Your task to perform on an android device: Open calendar and show me the first week of next month Image 0: 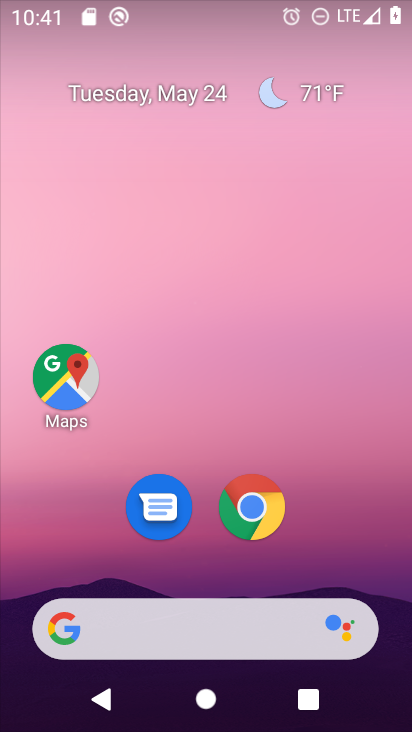
Step 0: drag from (238, 724) to (233, 47)
Your task to perform on an android device: Open calendar and show me the first week of next month Image 1: 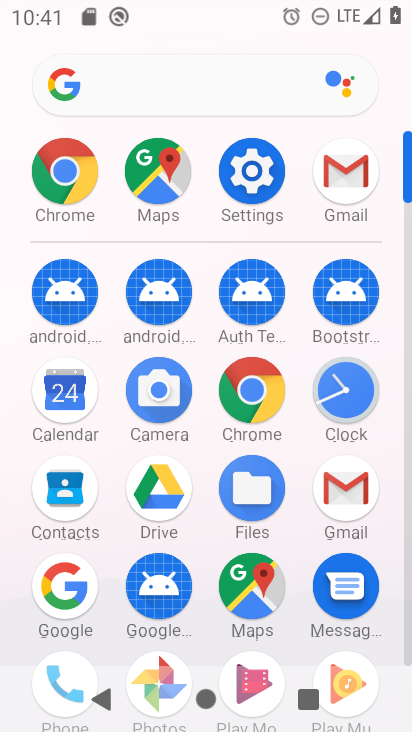
Step 1: click (64, 390)
Your task to perform on an android device: Open calendar and show me the first week of next month Image 2: 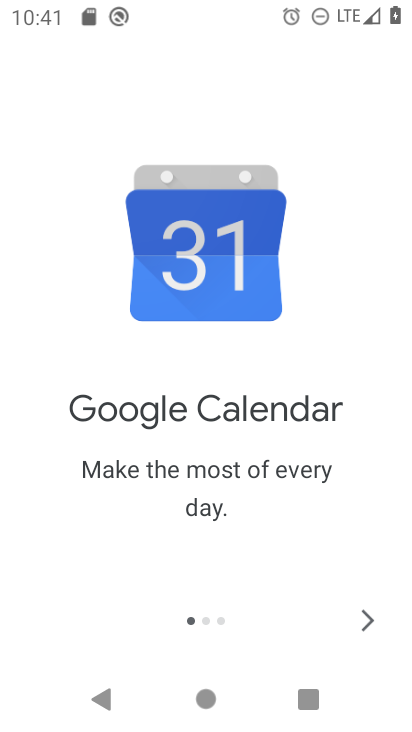
Step 2: click (365, 610)
Your task to perform on an android device: Open calendar and show me the first week of next month Image 3: 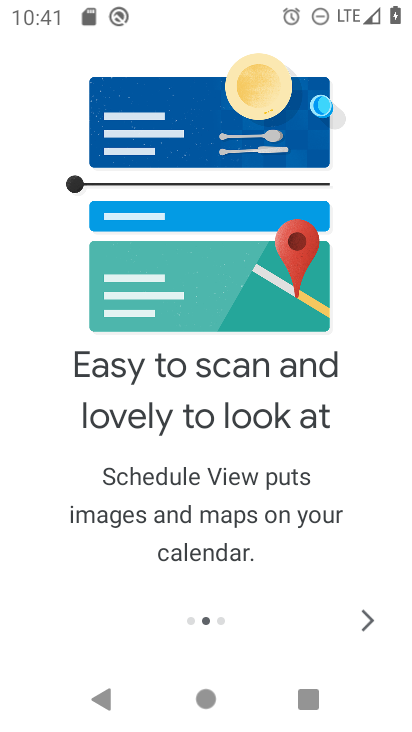
Step 3: click (365, 616)
Your task to perform on an android device: Open calendar and show me the first week of next month Image 4: 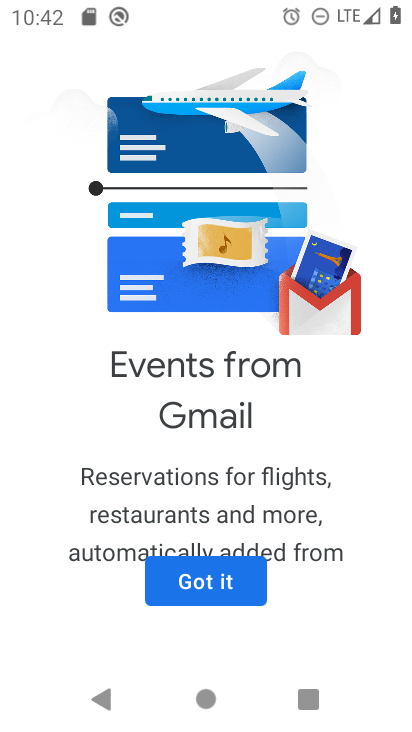
Step 4: click (230, 583)
Your task to perform on an android device: Open calendar and show me the first week of next month Image 5: 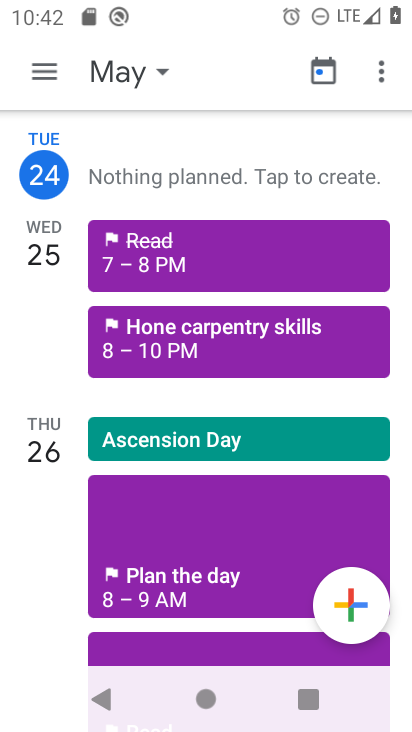
Step 5: click (150, 74)
Your task to perform on an android device: Open calendar and show me the first week of next month Image 6: 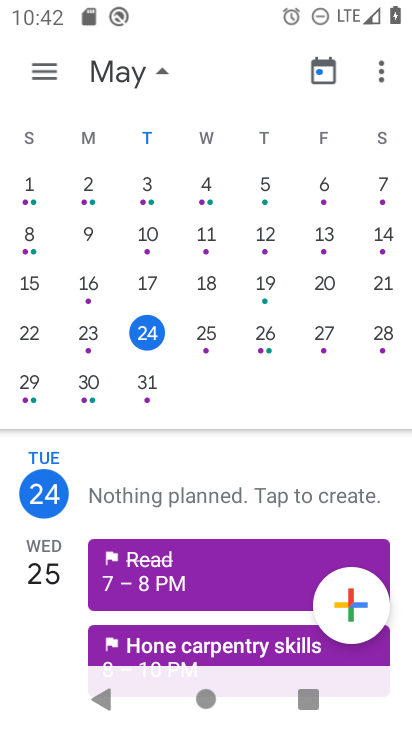
Step 6: drag from (345, 272) to (5, 257)
Your task to perform on an android device: Open calendar and show me the first week of next month Image 7: 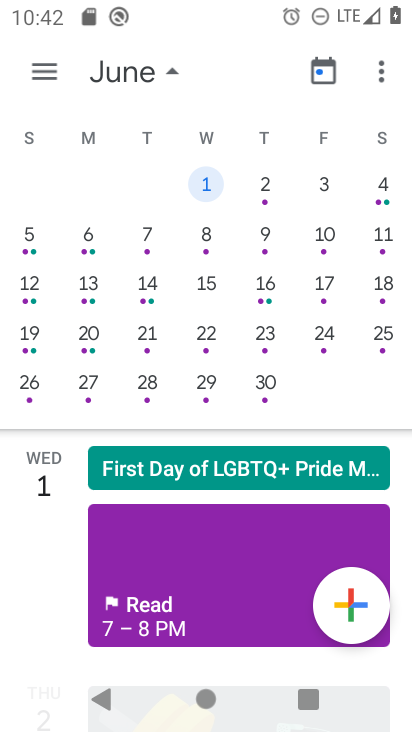
Step 7: click (83, 381)
Your task to perform on an android device: Open calendar and show me the first week of next month Image 8: 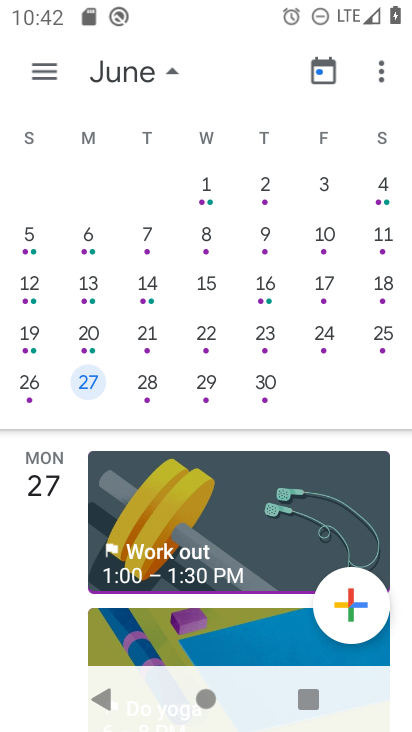
Step 8: click (46, 70)
Your task to perform on an android device: Open calendar and show me the first week of next month Image 9: 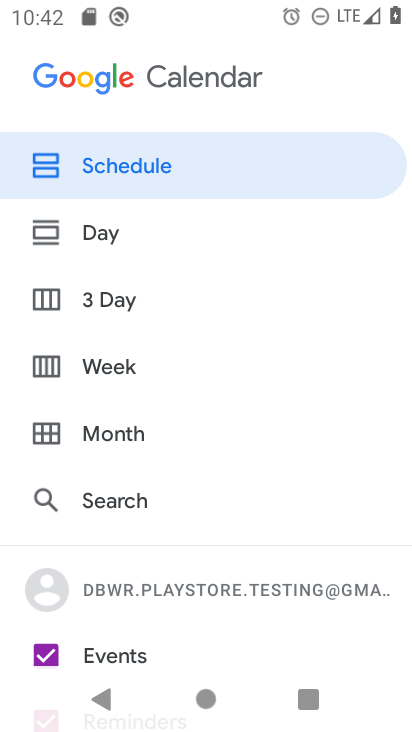
Step 9: click (107, 367)
Your task to perform on an android device: Open calendar and show me the first week of next month Image 10: 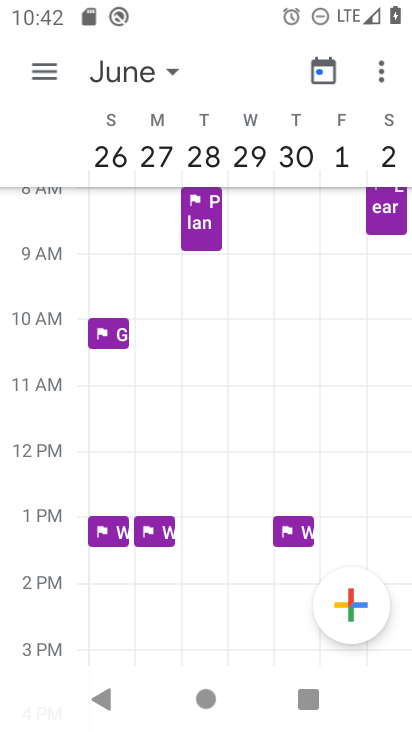
Step 10: task complete